Your task to perform on an android device: turn off location history Image 0: 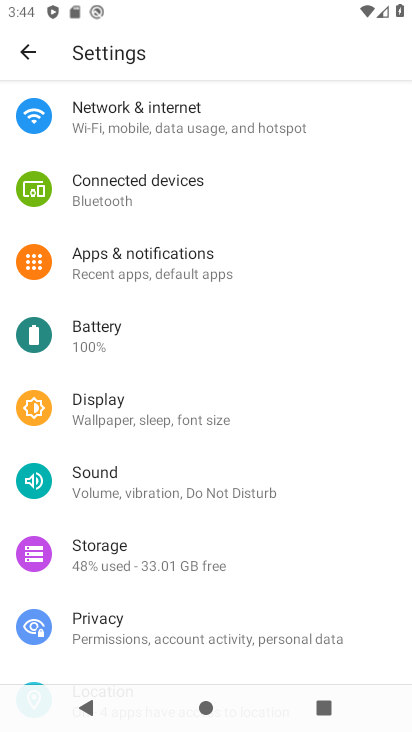
Step 0: drag from (173, 586) to (179, 293)
Your task to perform on an android device: turn off location history Image 1: 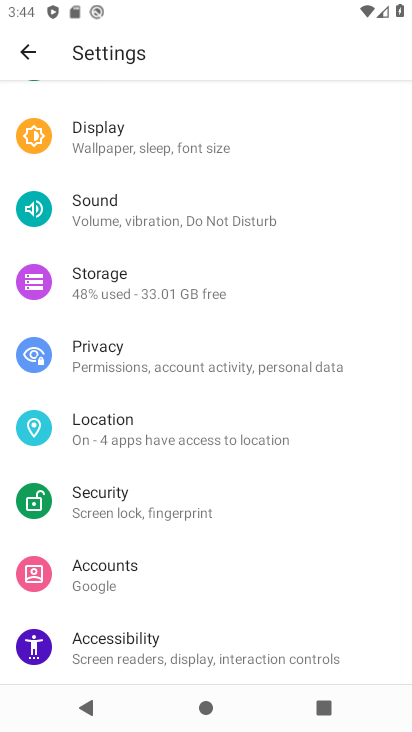
Step 1: click (128, 419)
Your task to perform on an android device: turn off location history Image 2: 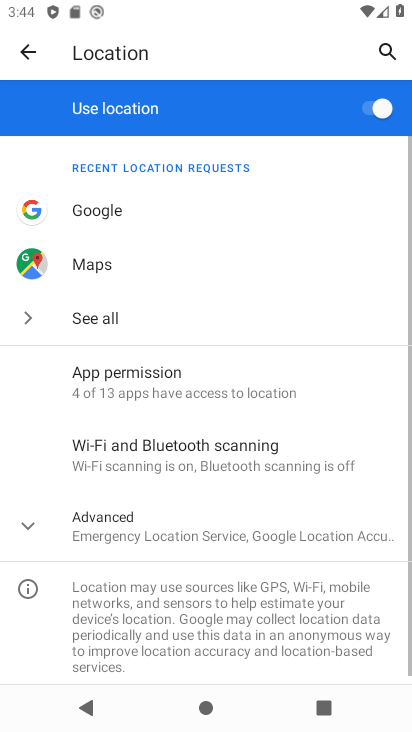
Step 2: click (131, 543)
Your task to perform on an android device: turn off location history Image 3: 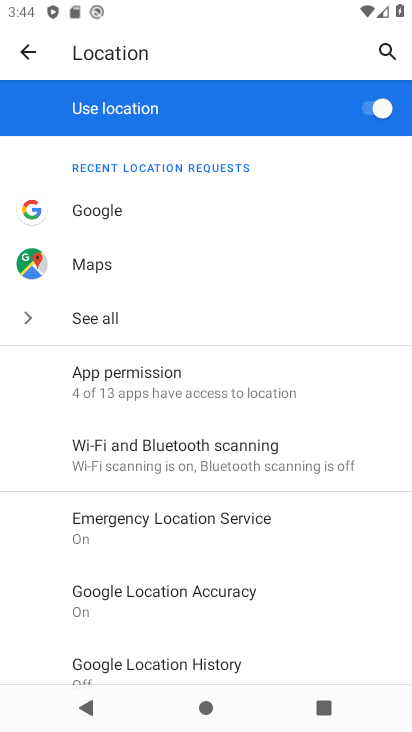
Step 3: click (150, 665)
Your task to perform on an android device: turn off location history Image 4: 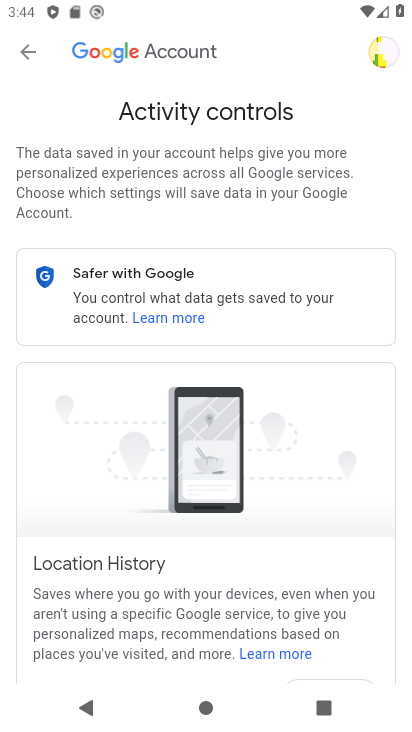
Step 4: task complete